Your task to perform on an android device: Open wifi settings Image 0: 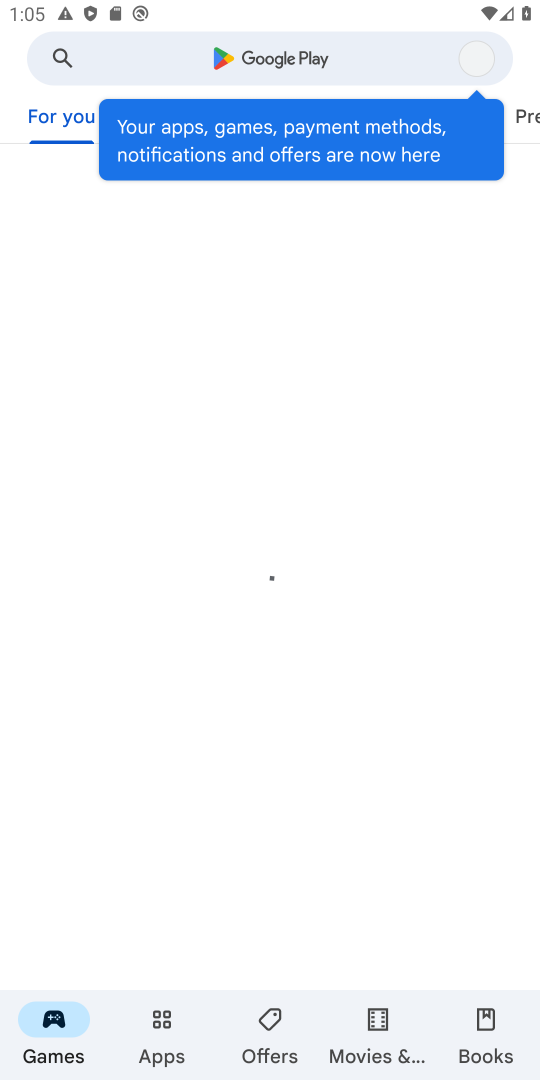
Step 0: press home button
Your task to perform on an android device: Open wifi settings Image 1: 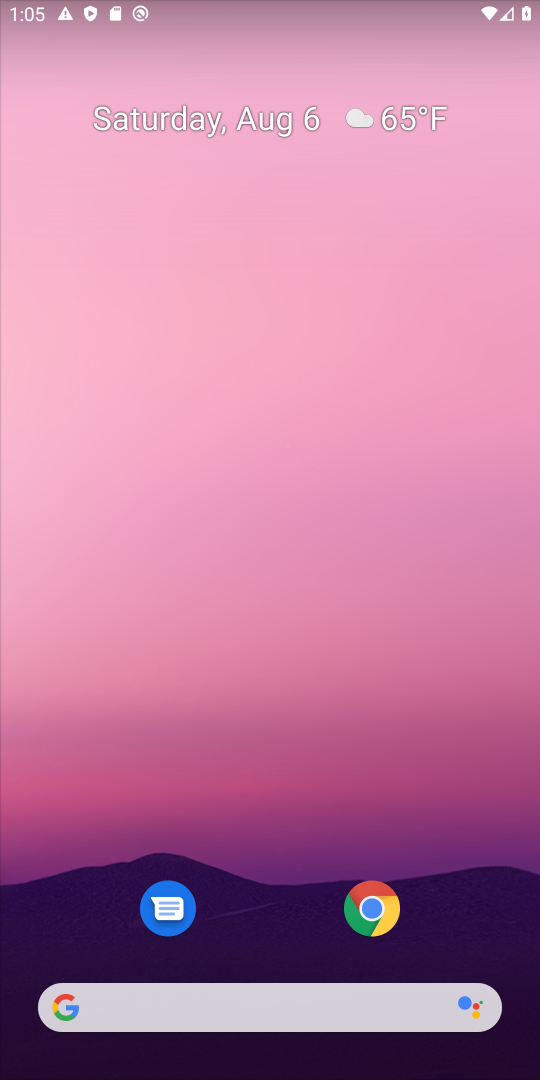
Step 1: drag from (256, 870) to (209, 72)
Your task to perform on an android device: Open wifi settings Image 2: 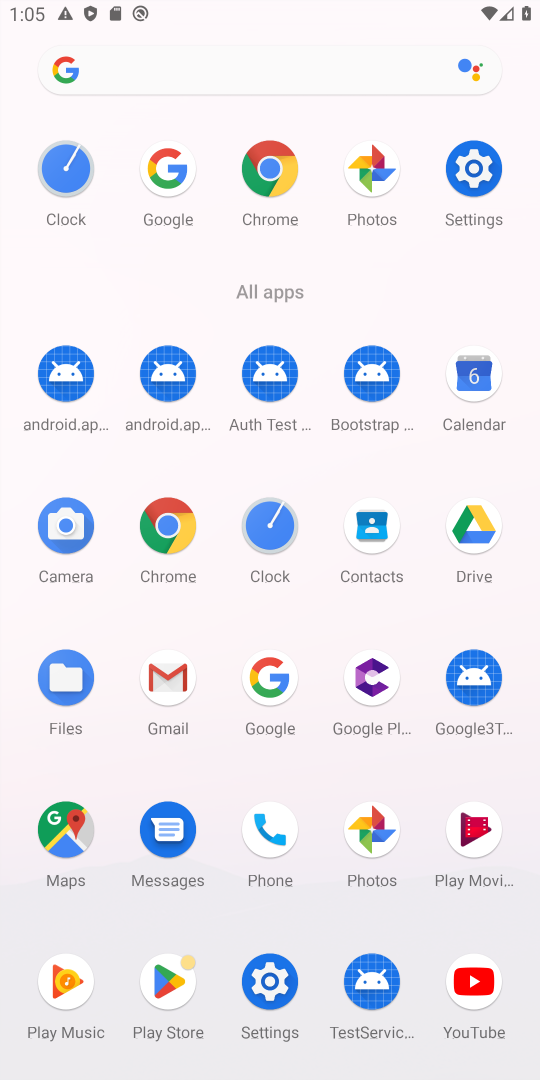
Step 2: click (471, 187)
Your task to perform on an android device: Open wifi settings Image 3: 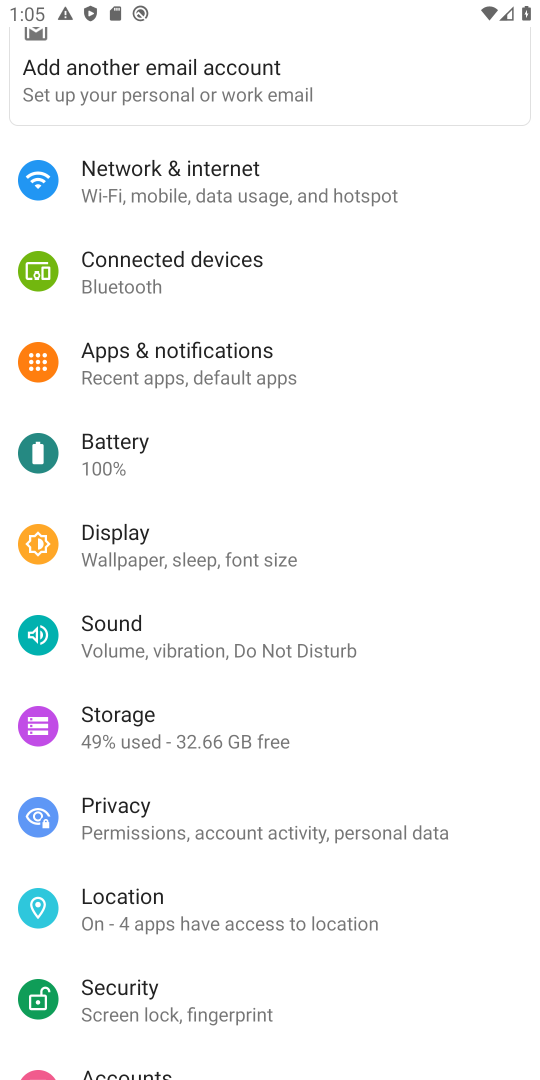
Step 3: click (230, 198)
Your task to perform on an android device: Open wifi settings Image 4: 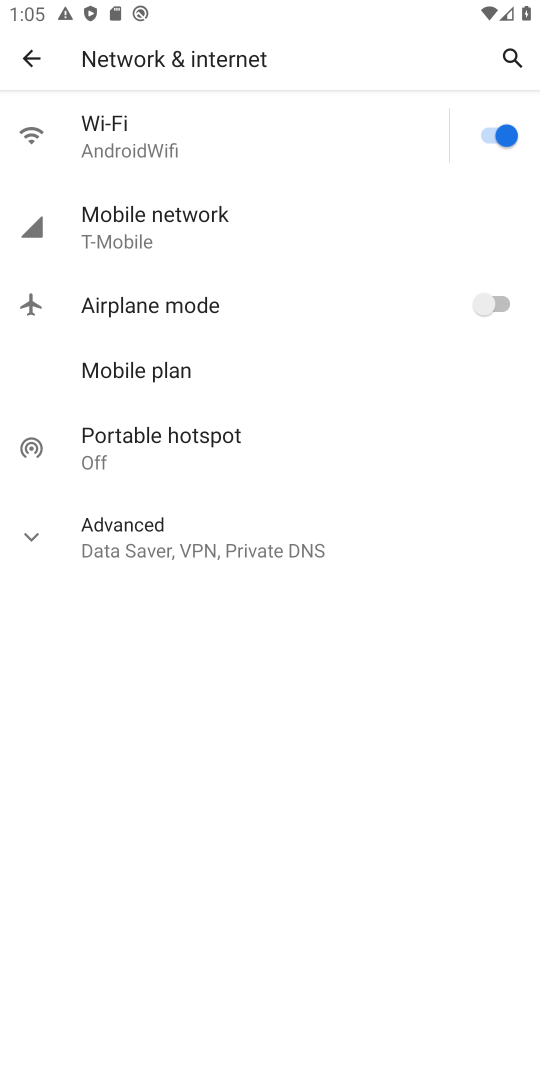
Step 4: click (139, 156)
Your task to perform on an android device: Open wifi settings Image 5: 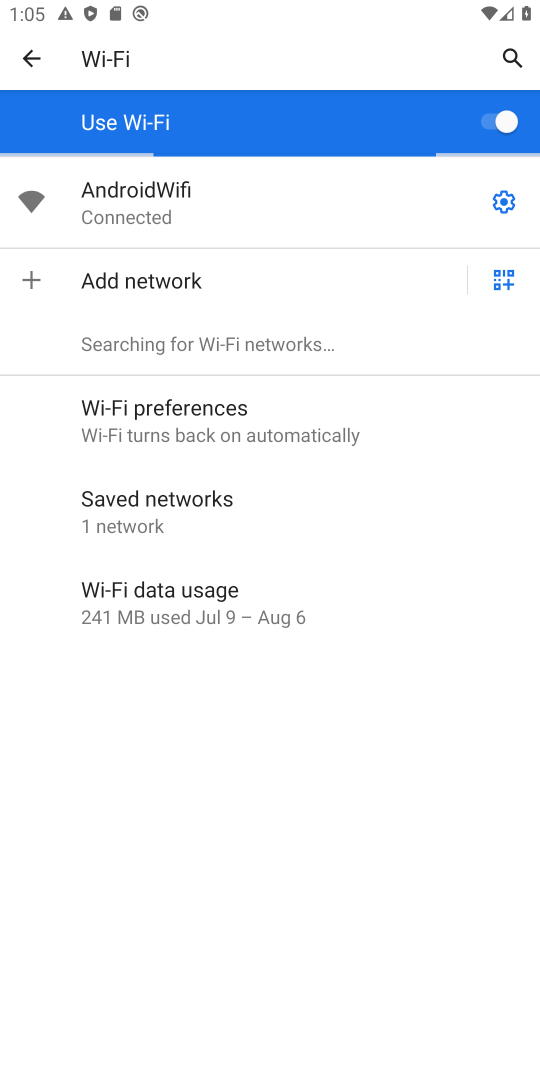
Step 5: task complete